Your task to perform on an android device: turn notification dots off Image 0: 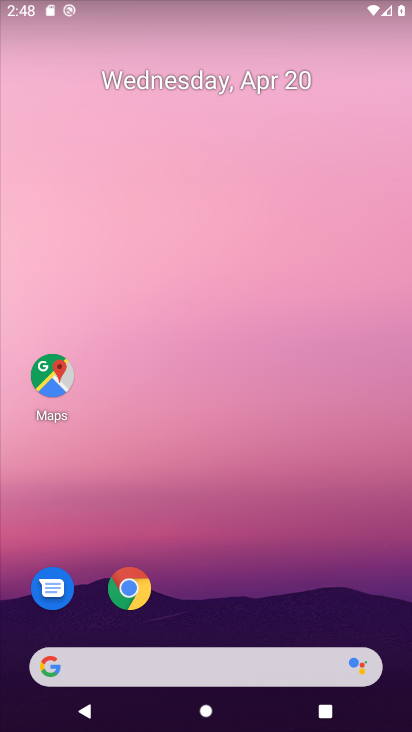
Step 0: drag from (301, 618) to (299, 219)
Your task to perform on an android device: turn notification dots off Image 1: 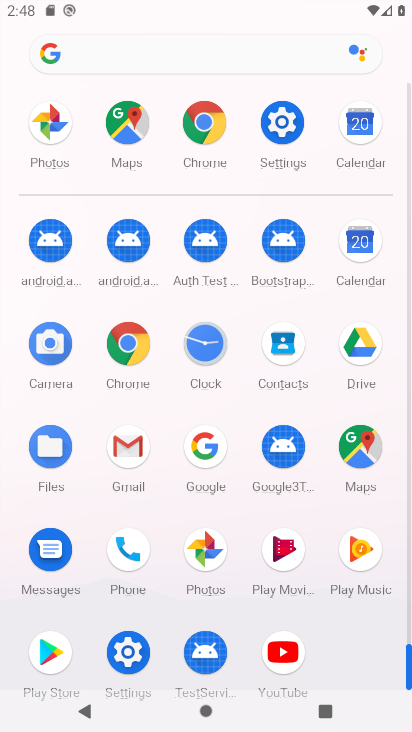
Step 1: click (287, 126)
Your task to perform on an android device: turn notification dots off Image 2: 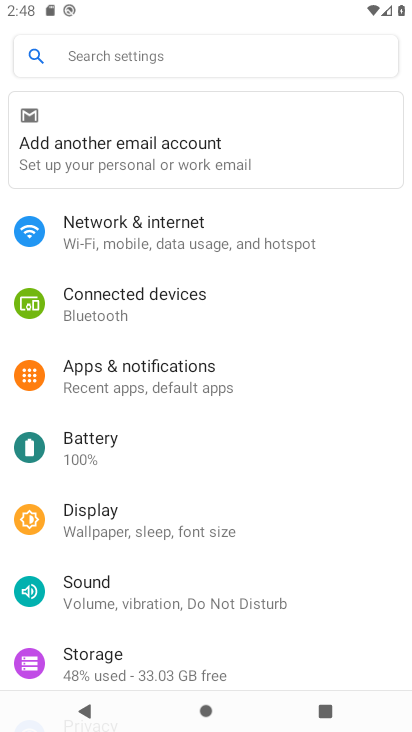
Step 2: drag from (345, 576) to (348, 376)
Your task to perform on an android device: turn notification dots off Image 3: 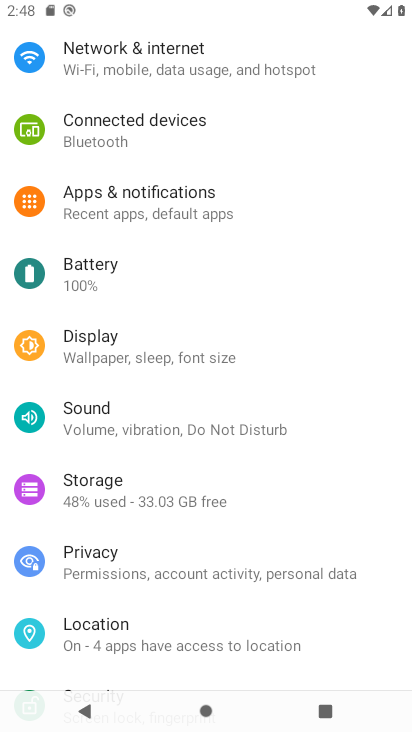
Step 3: drag from (366, 631) to (370, 368)
Your task to perform on an android device: turn notification dots off Image 4: 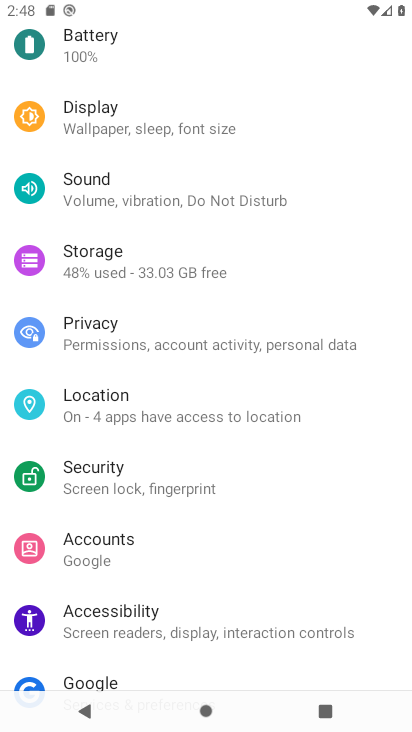
Step 4: drag from (366, 585) to (367, 369)
Your task to perform on an android device: turn notification dots off Image 5: 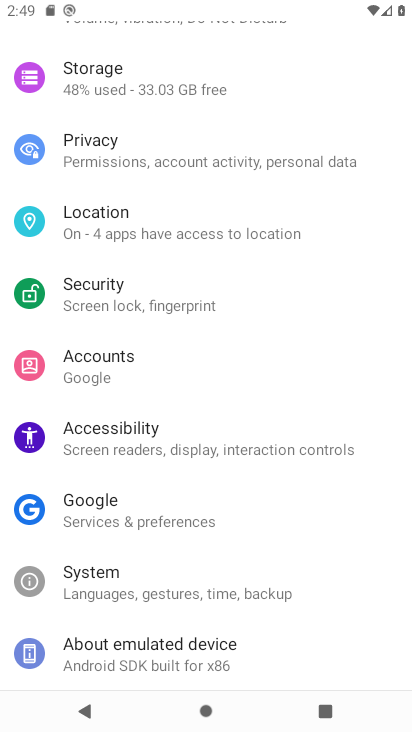
Step 5: drag from (368, 265) to (371, 525)
Your task to perform on an android device: turn notification dots off Image 6: 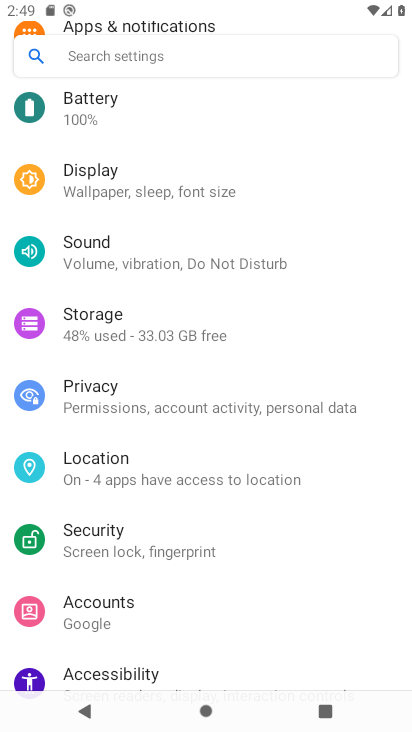
Step 6: drag from (379, 254) to (374, 455)
Your task to perform on an android device: turn notification dots off Image 7: 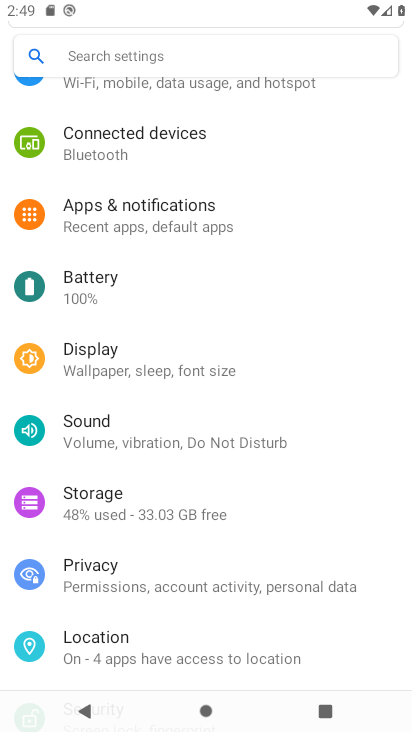
Step 7: drag from (354, 223) to (358, 365)
Your task to perform on an android device: turn notification dots off Image 8: 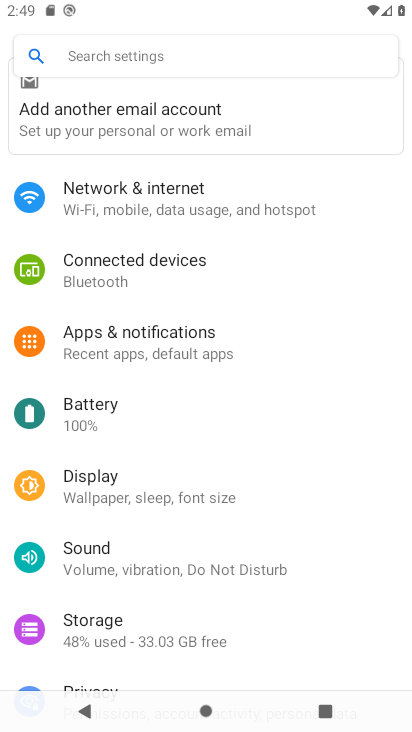
Step 8: click (201, 355)
Your task to perform on an android device: turn notification dots off Image 9: 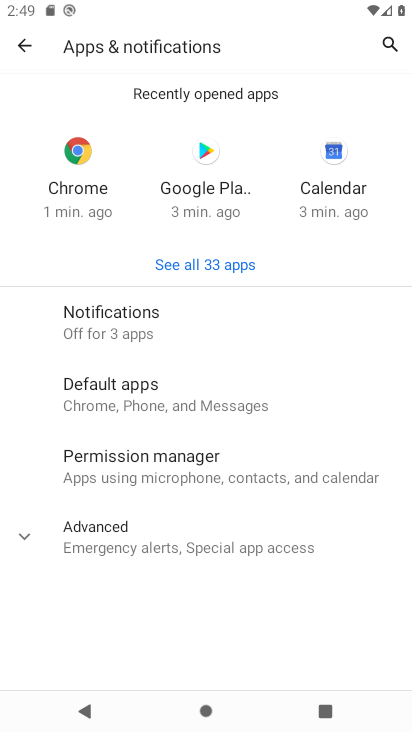
Step 9: click (130, 313)
Your task to perform on an android device: turn notification dots off Image 10: 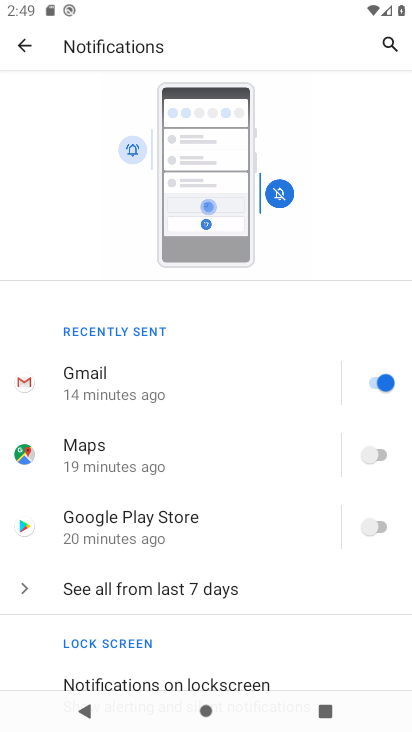
Step 10: drag from (297, 533) to (308, 336)
Your task to perform on an android device: turn notification dots off Image 11: 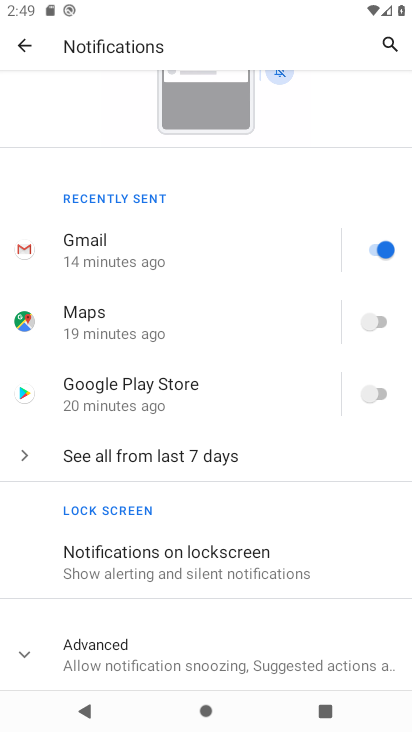
Step 11: click (237, 650)
Your task to perform on an android device: turn notification dots off Image 12: 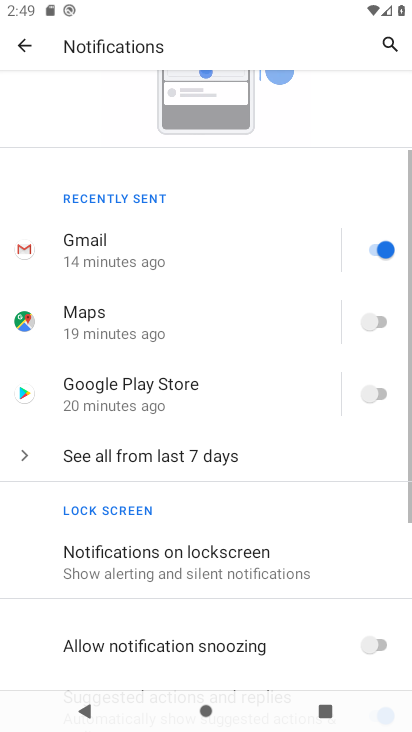
Step 12: drag from (308, 614) to (311, 370)
Your task to perform on an android device: turn notification dots off Image 13: 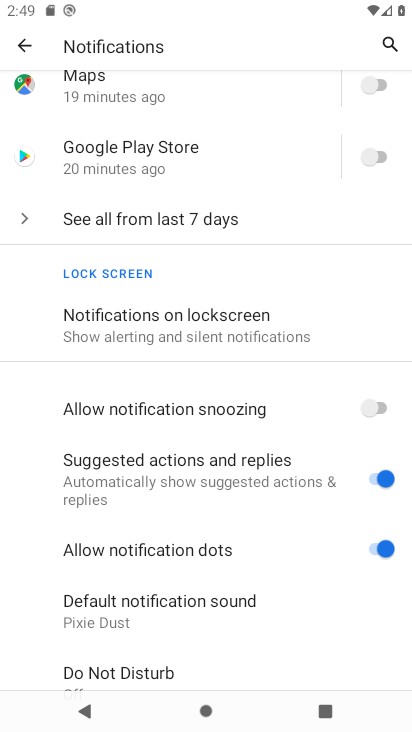
Step 13: drag from (326, 632) to (330, 416)
Your task to perform on an android device: turn notification dots off Image 14: 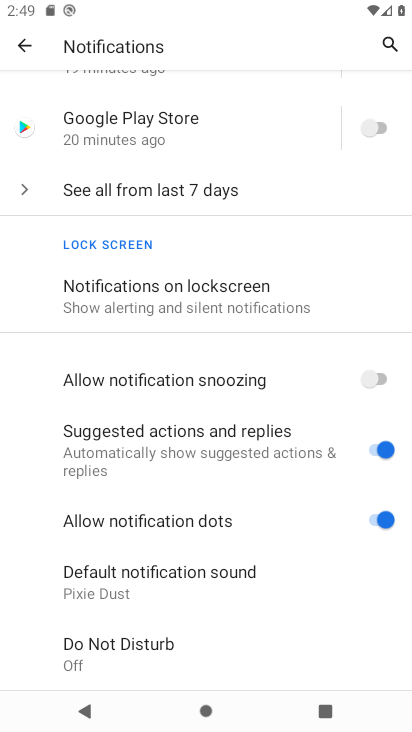
Step 14: click (383, 520)
Your task to perform on an android device: turn notification dots off Image 15: 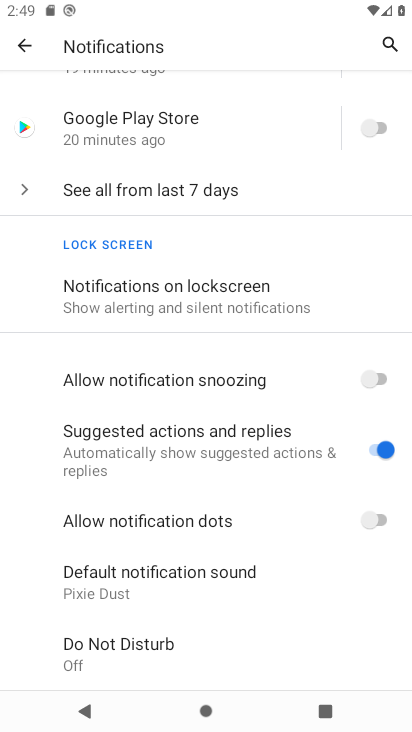
Step 15: task complete